Your task to perform on an android device: Open accessibility settings Image 0: 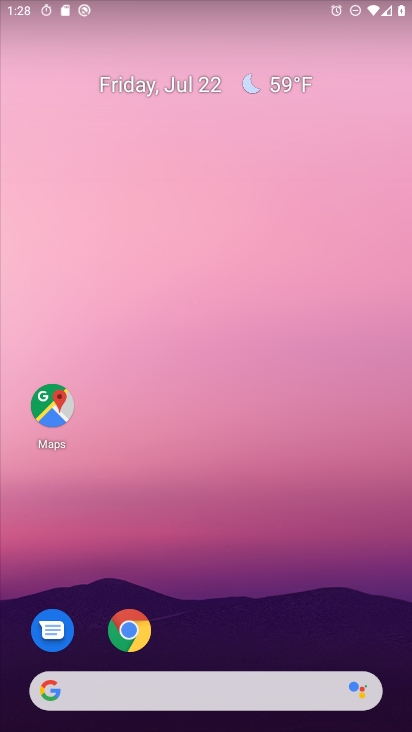
Step 0: press home button
Your task to perform on an android device: Open accessibility settings Image 1: 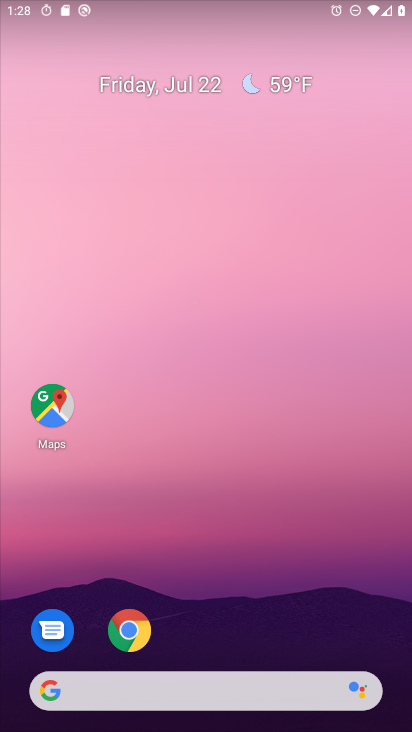
Step 1: drag from (250, 649) to (278, 140)
Your task to perform on an android device: Open accessibility settings Image 2: 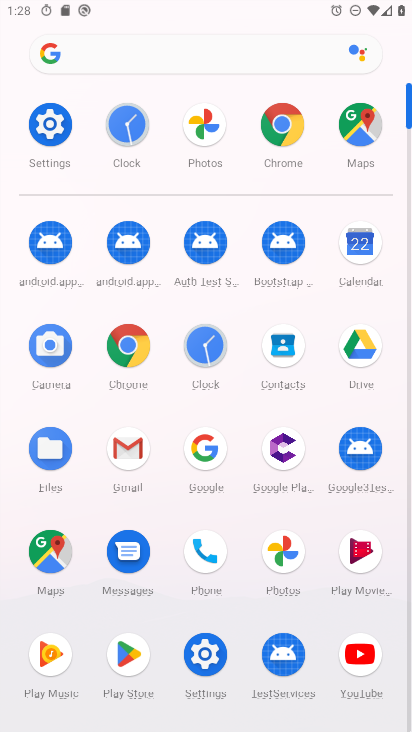
Step 2: click (40, 126)
Your task to perform on an android device: Open accessibility settings Image 3: 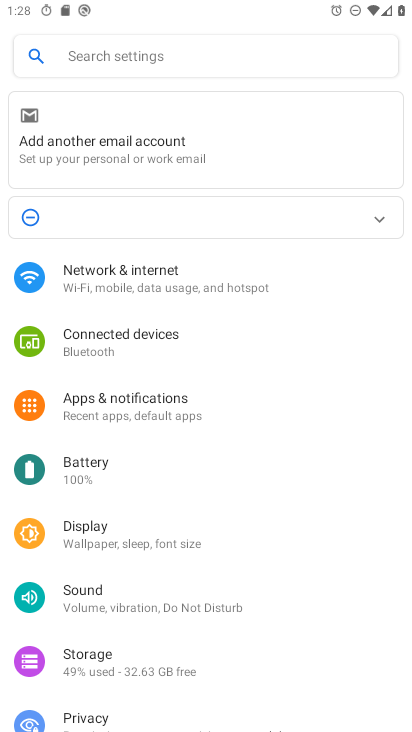
Step 3: drag from (282, 665) to (283, 157)
Your task to perform on an android device: Open accessibility settings Image 4: 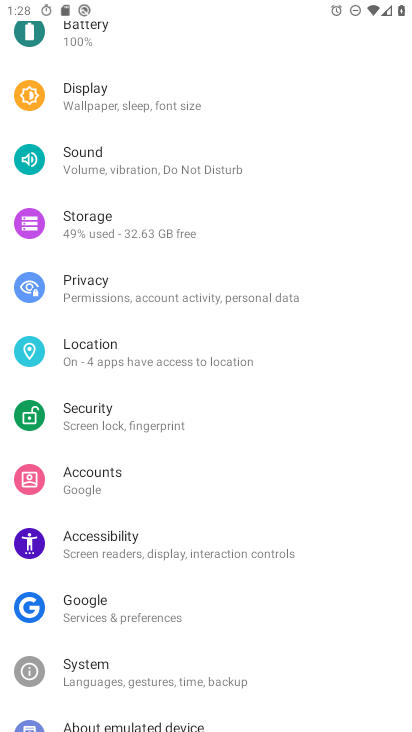
Step 4: click (88, 547)
Your task to perform on an android device: Open accessibility settings Image 5: 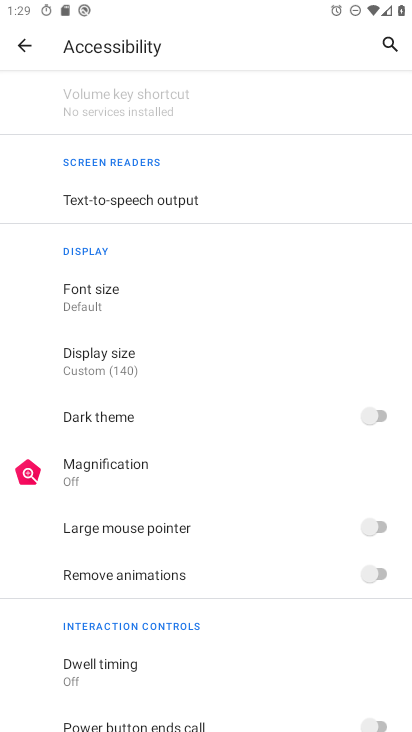
Step 5: task complete